Your task to perform on an android device: check android version Image 0: 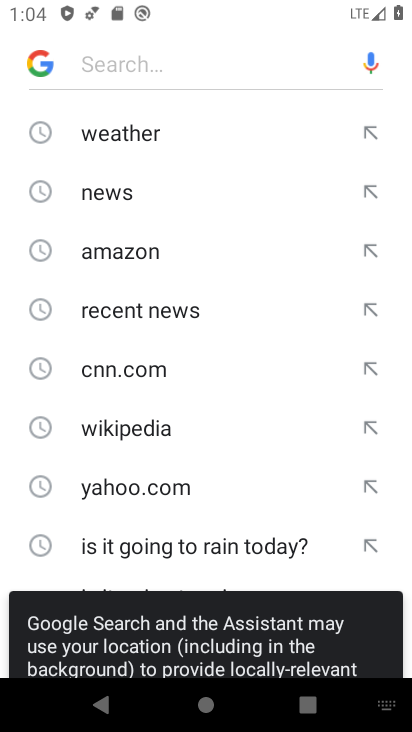
Step 0: press home button
Your task to perform on an android device: check android version Image 1: 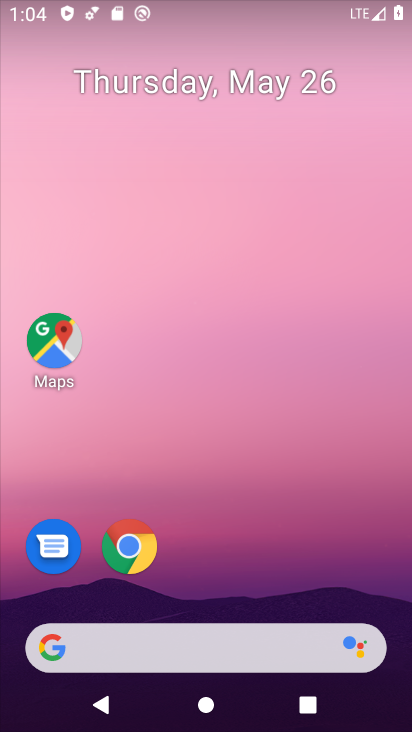
Step 1: drag from (235, 375) to (162, 0)
Your task to perform on an android device: check android version Image 2: 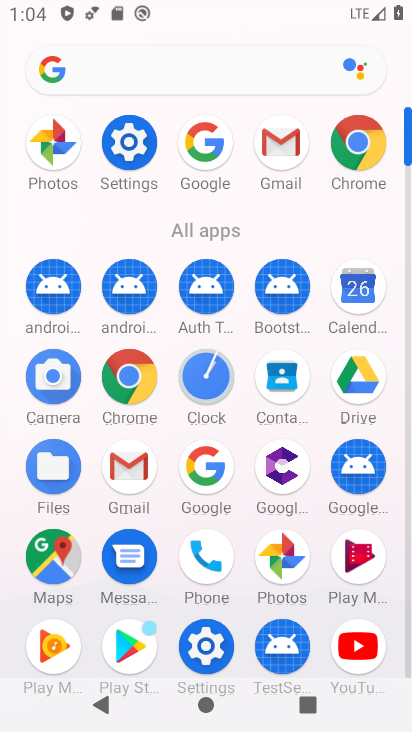
Step 2: click (133, 132)
Your task to perform on an android device: check android version Image 3: 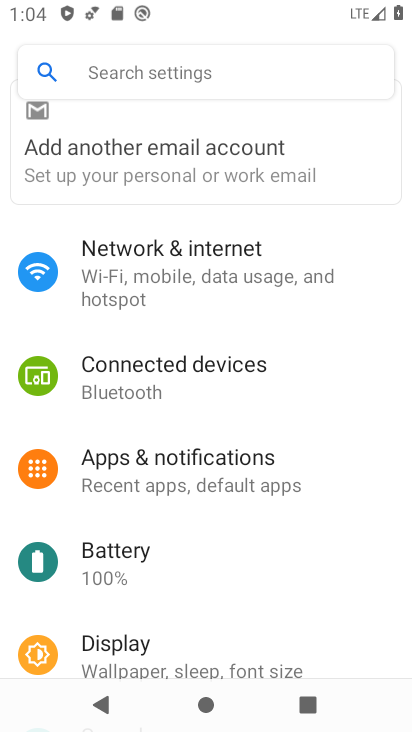
Step 3: drag from (247, 605) to (267, 80)
Your task to perform on an android device: check android version Image 4: 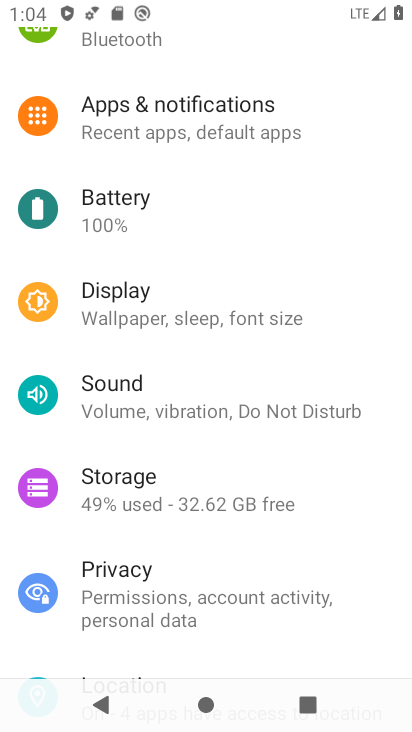
Step 4: drag from (231, 615) to (269, 46)
Your task to perform on an android device: check android version Image 5: 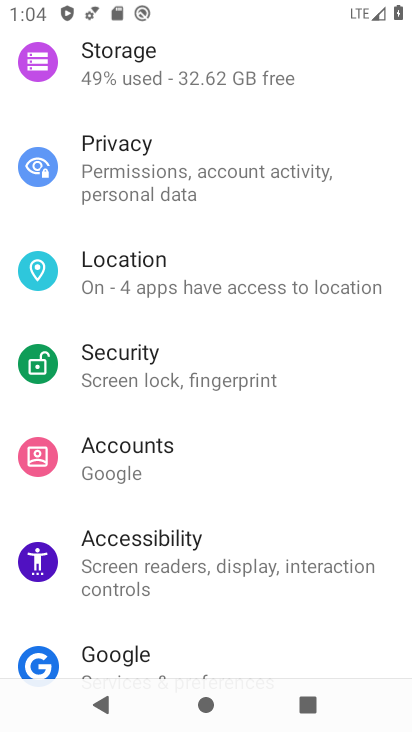
Step 5: drag from (234, 573) to (243, 0)
Your task to perform on an android device: check android version Image 6: 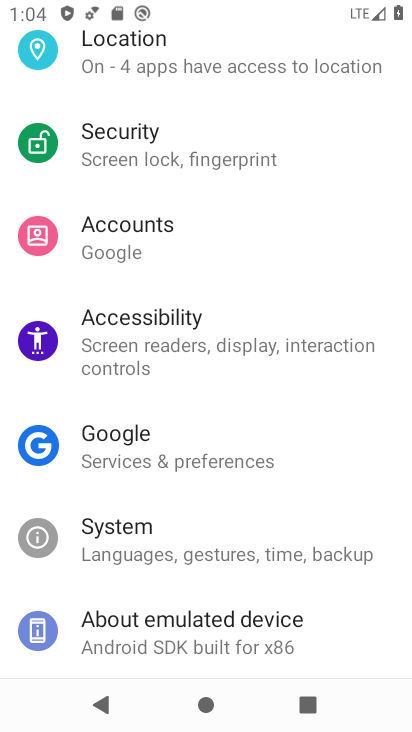
Step 6: click (187, 635)
Your task to perform on an android device: check android version Image 7: 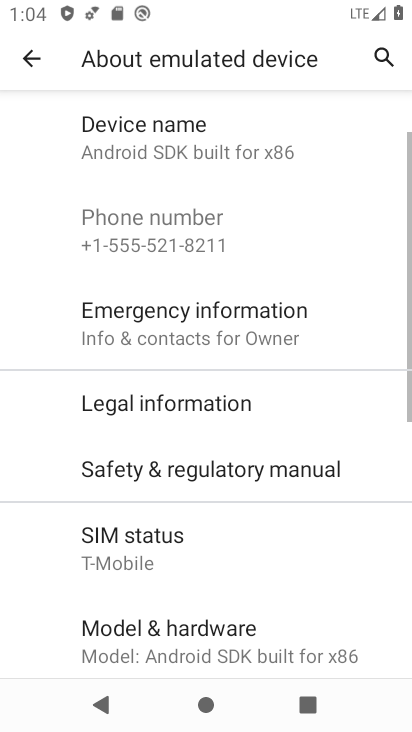
Step 7: drag from (226, 602) to (262, 183)
Your task to perform on an android device: check android version Image 8: 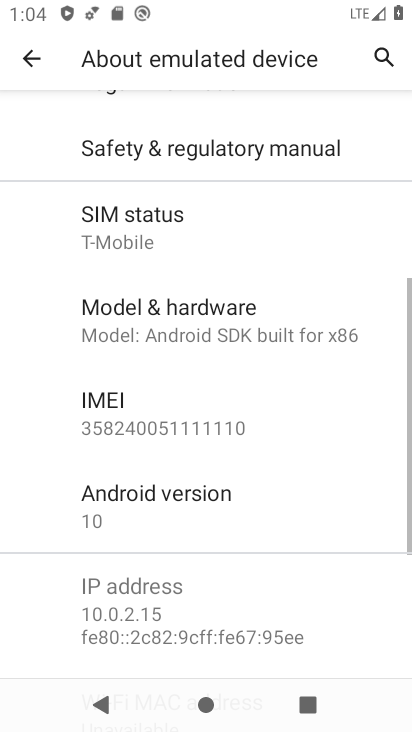
Step 8: click (209, 509)
Your task to perform on an android device: check android version Image 9: 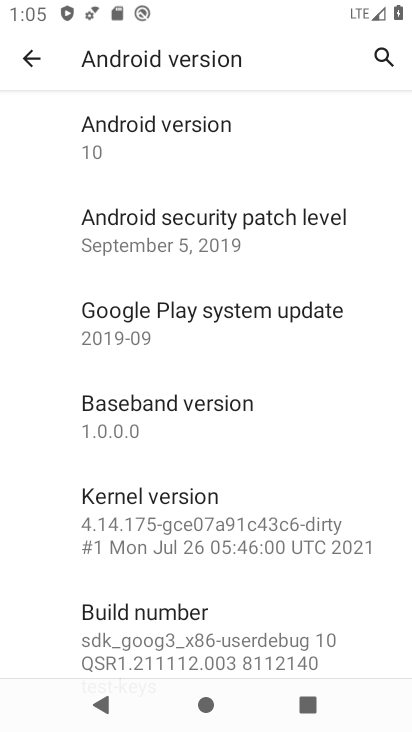
Step 9: task complete